Your task to perform on an android device: check data usage Image 0: 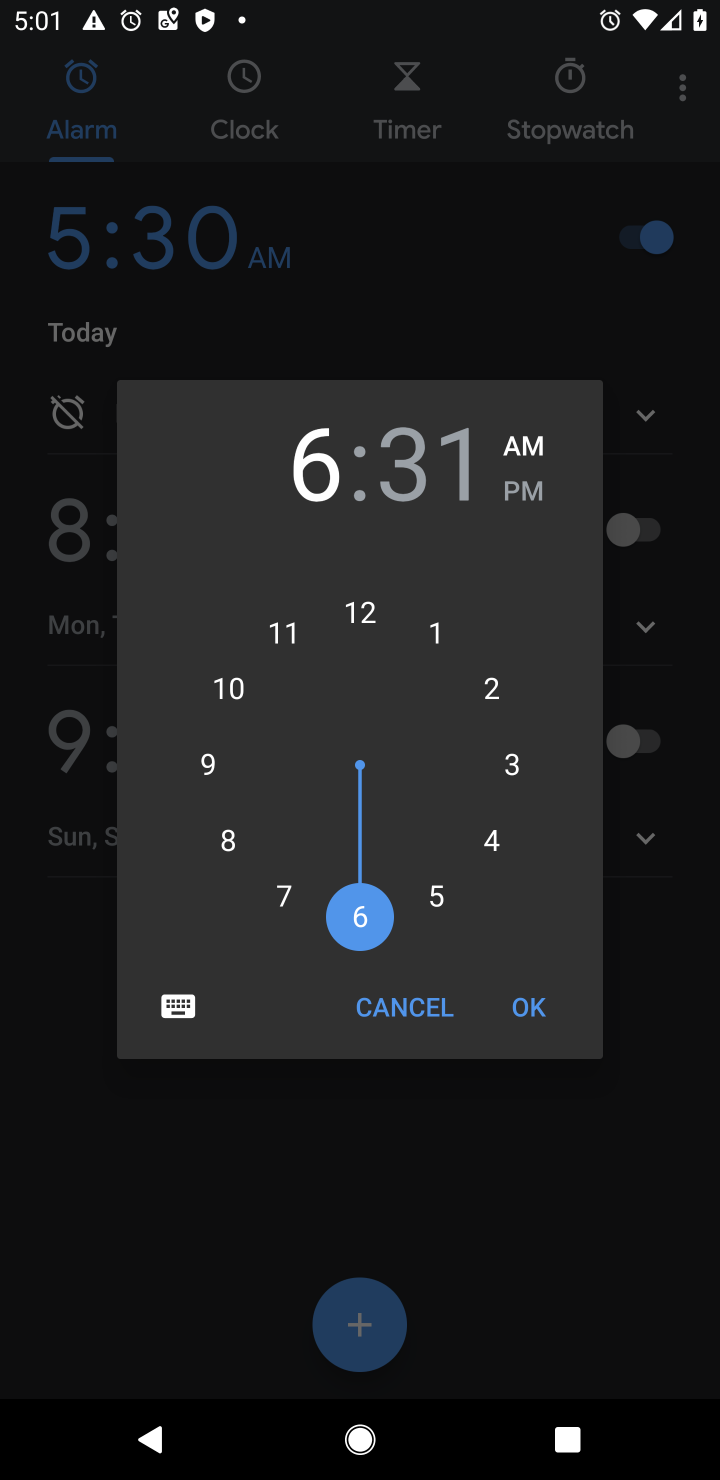
Step 0: press home button
Your task to perform on an android device: check data usage Image 1: 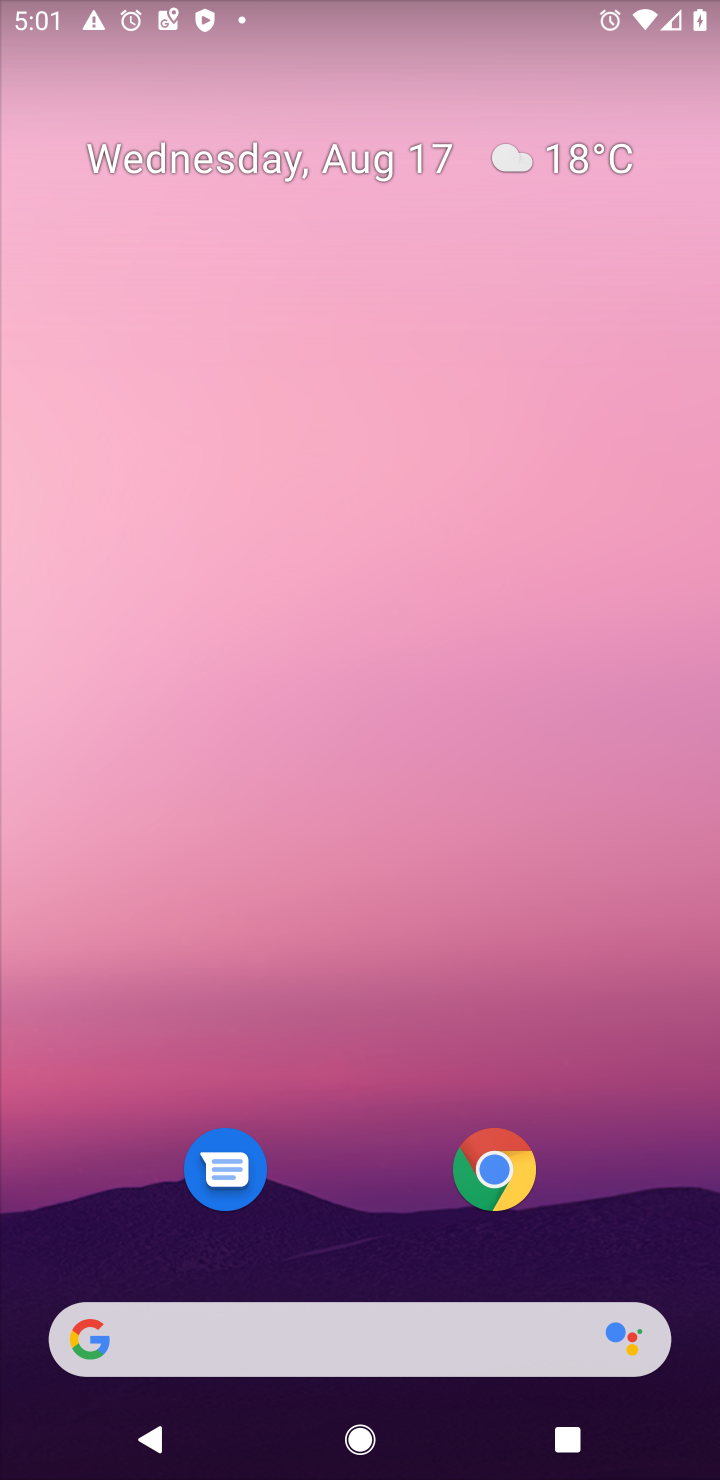
Step 1: drag from (250, 13) to (195, 1167)
Your task to perform on an android device: check data usage Image 2: 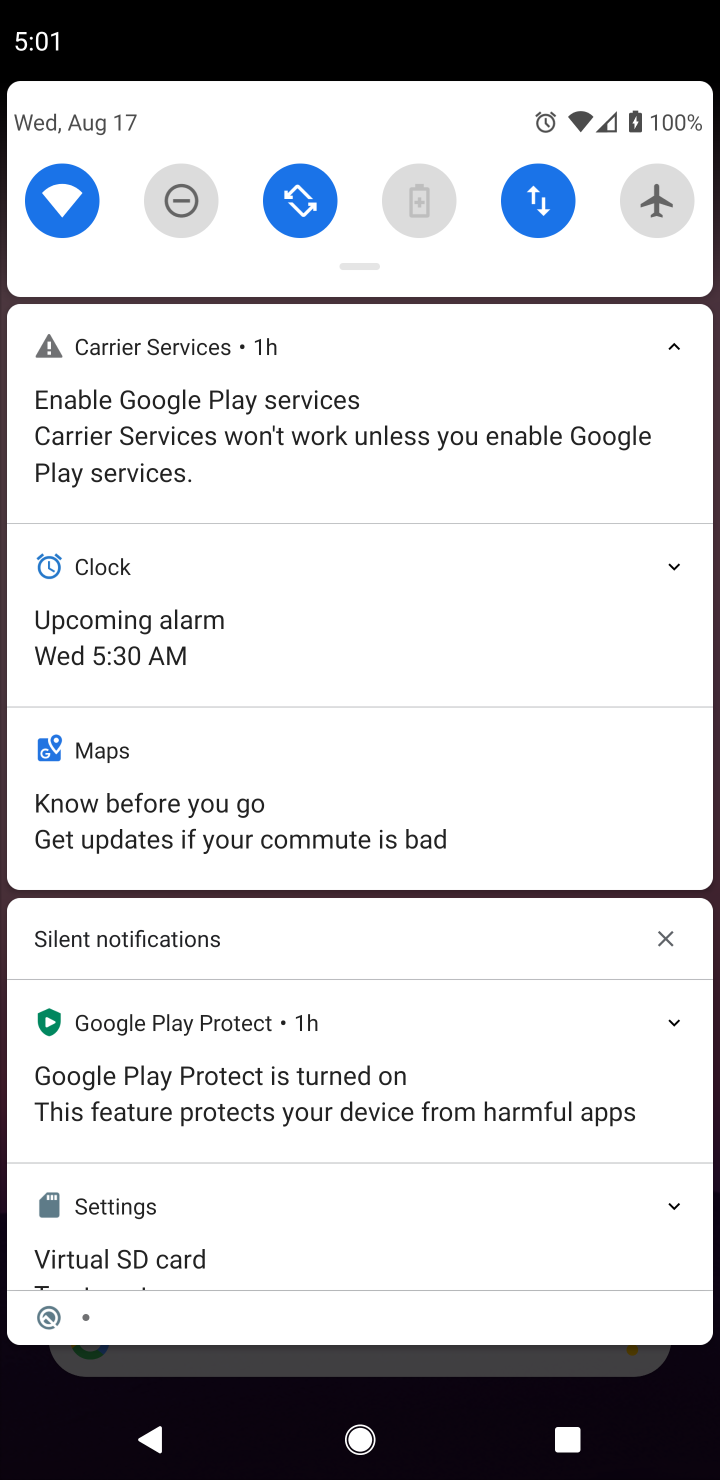
Step 2: click (549, 190)
Your task to perform on an android device: check data usage Image 3: 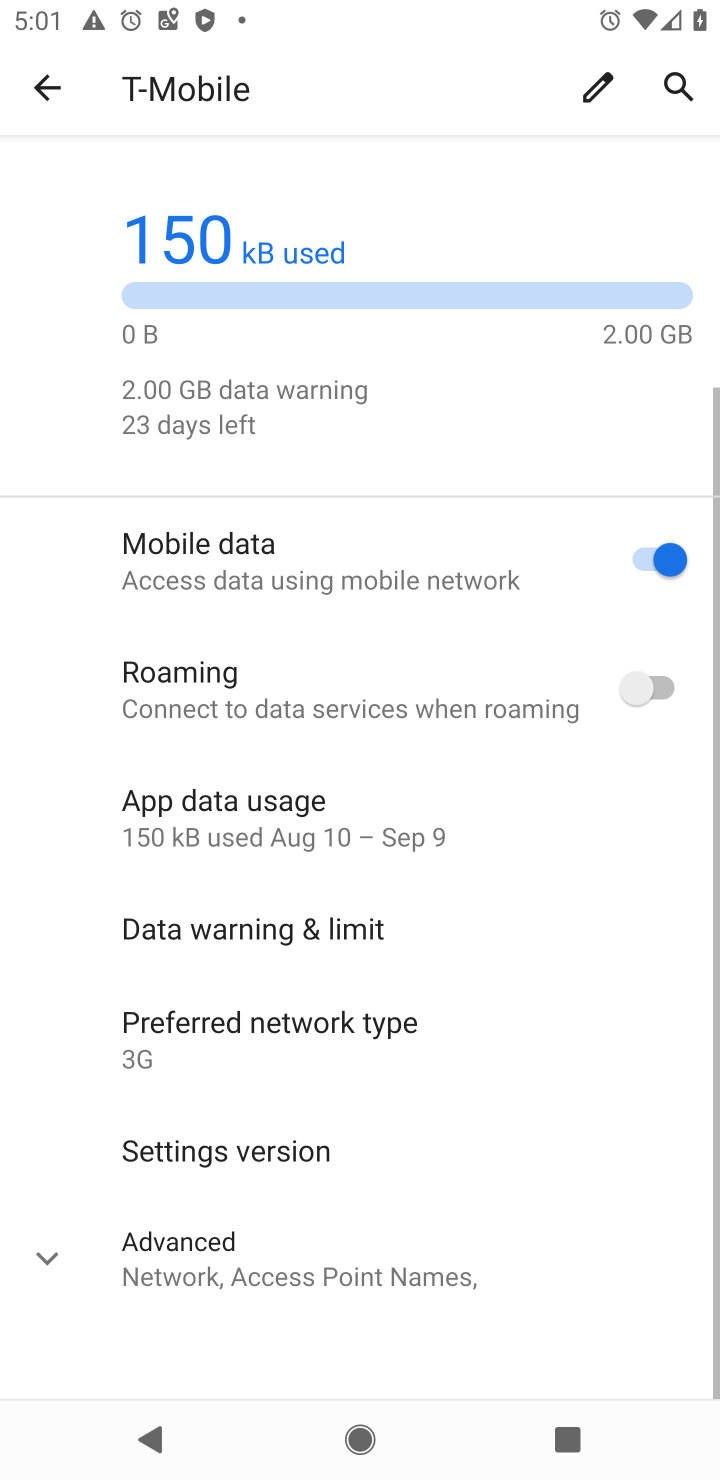
Step 3: click (460, 9)
Your task to perform on an android device: check data usage Image 4: 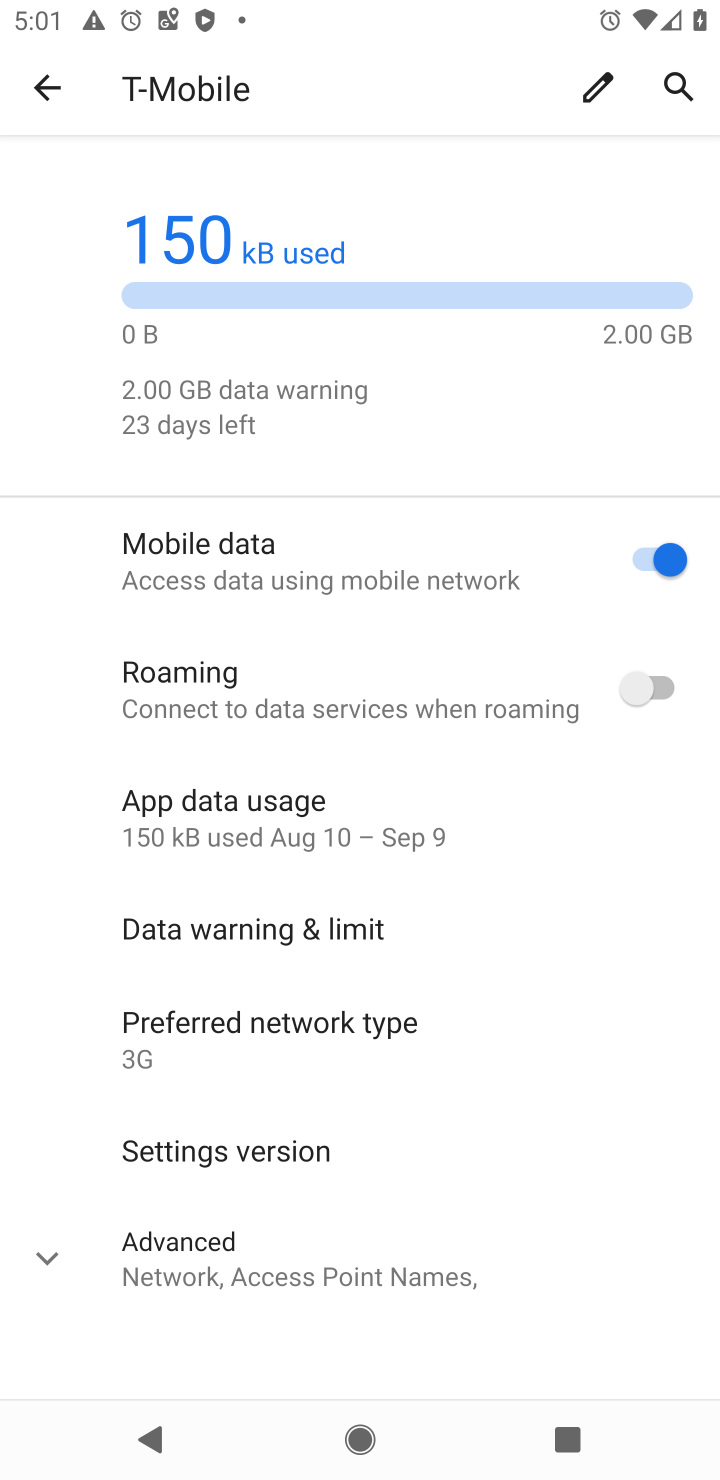
Step 4: task complete